Your task to perform on an android device: turn on location history Image 0: 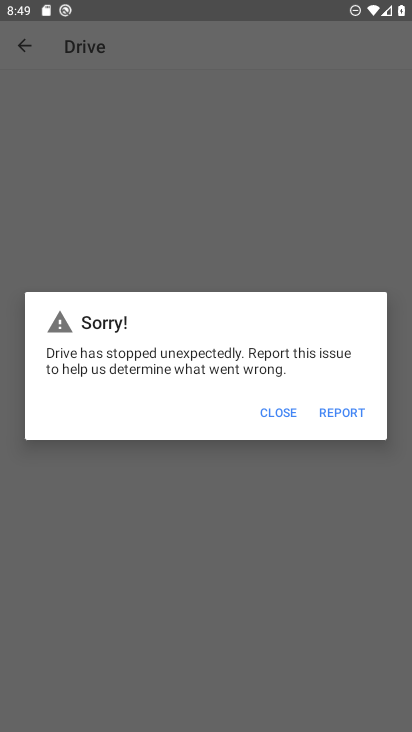
Step 0: press home button
Your task to perform on an android device: turn on location history Image 1: 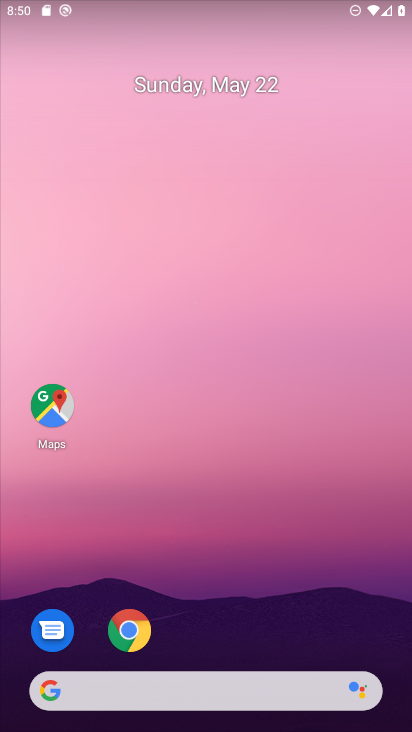
Step 1: drag from (240, 591) to (197, 200)
Your task to perform on an android device: turn on location history Image 2: 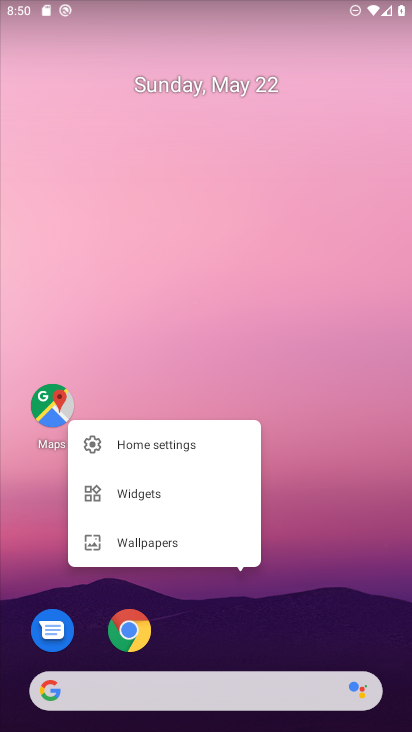
Step 2: click (317, 548)
Your task to perform on an android device: turn on location history Image 3: 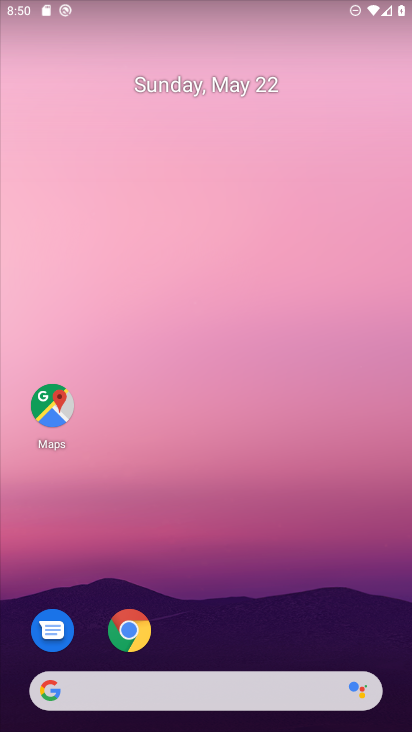
Step 3: drag from (257, 643) to (250, 148)
Your task to perform on an android device: turn on location history Image 4: 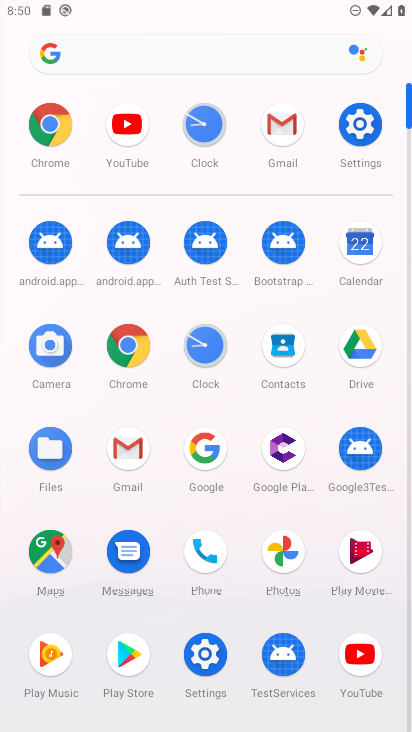
Step 4: click (358, 152)
Your task to perform on an android device: turn on location history Image 5: 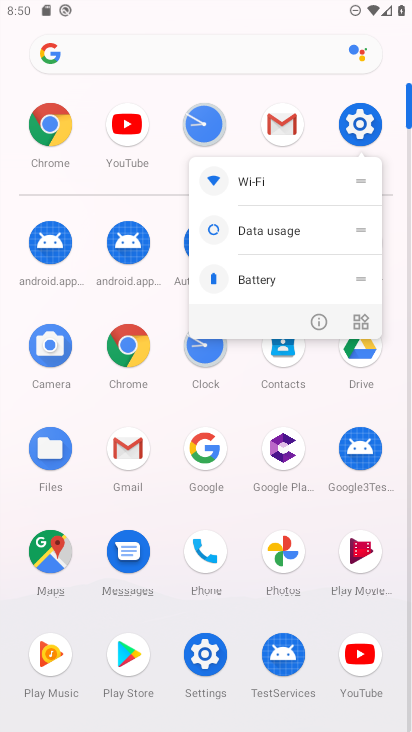
Step 5: click (358, 120)
Your task to perform on an android device: turn on location history Image 6: 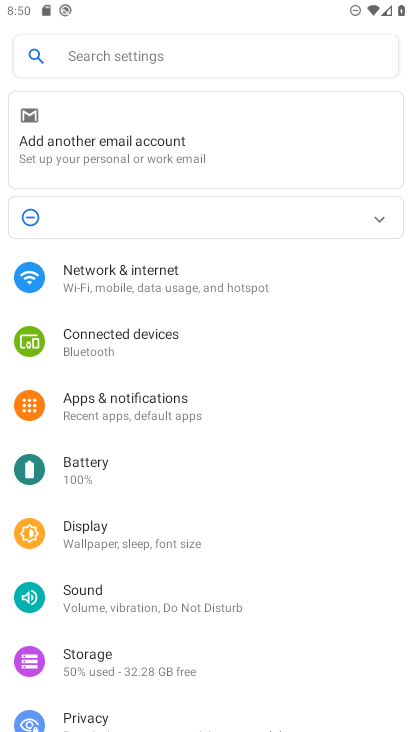
Step 6: drag from (141, 623) to (191, 309)
Your task to perform on an android device: turn on location history Image 7: 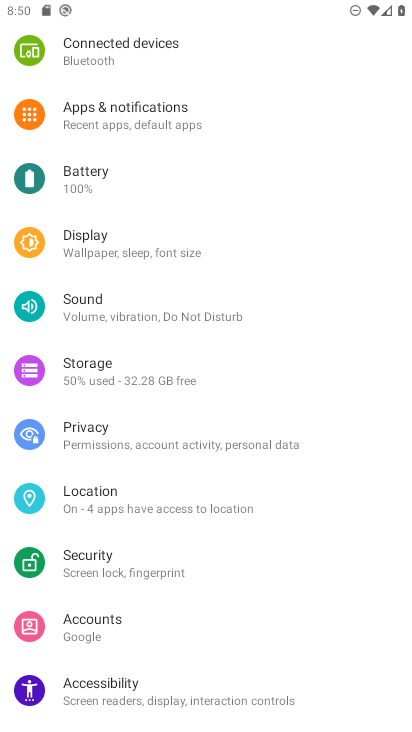
Step 7: click (278, 493)
Your task to perform on an android device: turn on location history Image 8: 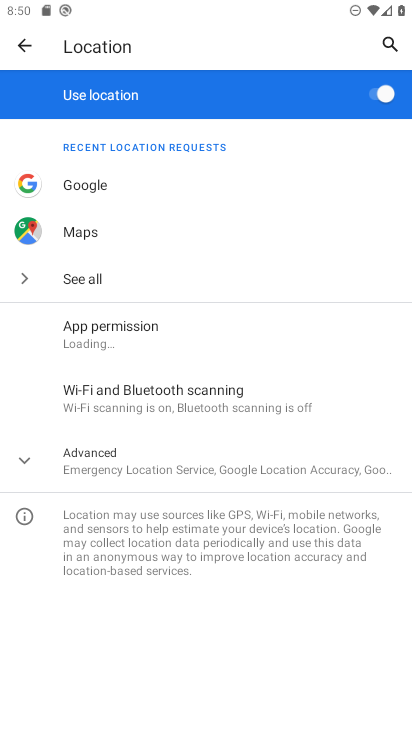
Step 8: click (205, 477)
Your task to perform on an android device: turn on location history Image 9: 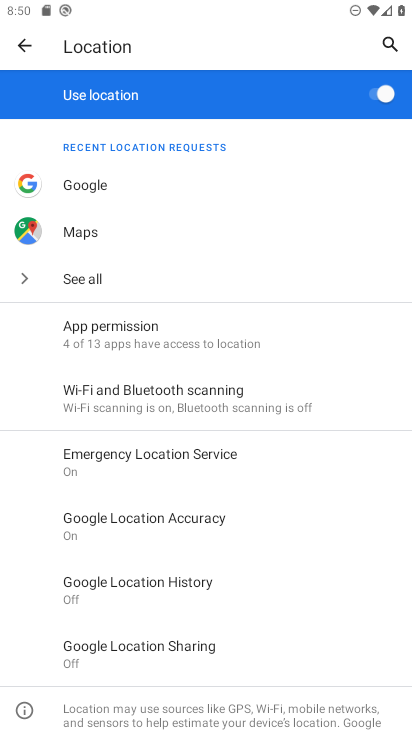
Step 9: click (259, 595)
Your task to perform on an android device: turn on location history Image 10: 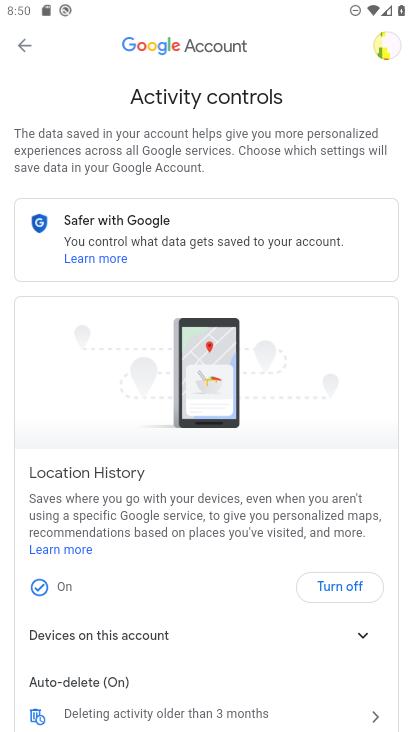
Step 10: click (319, 576)
Your task to perform on an android device: turn on location history Image 11: 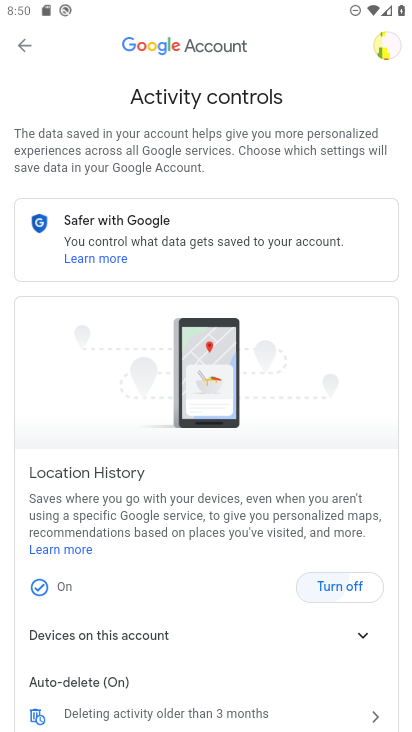
Step 11: click (322, 582)
Your task to perform on an android device: turn on location history Image 12: 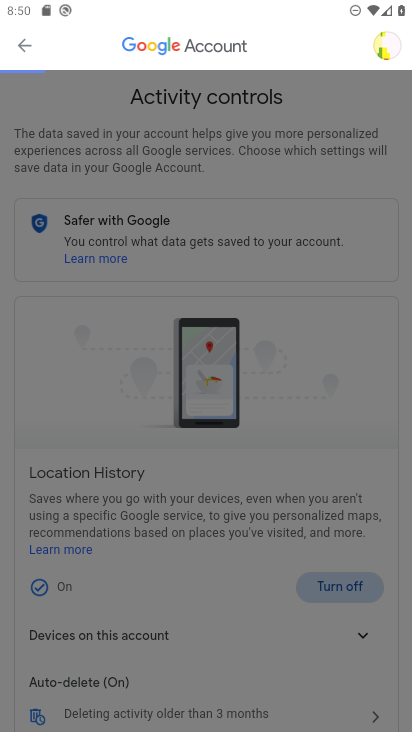
Step 12: click (322, 582)
Your task to perform on an android device: turn on location history Image 13: 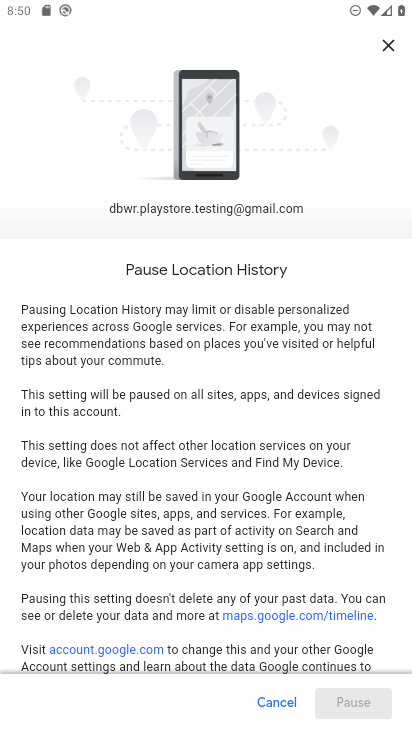
Step 13: drag from (241, 584) to (228, 310)
Your task to perform on an android device: turn on location history Image 14: 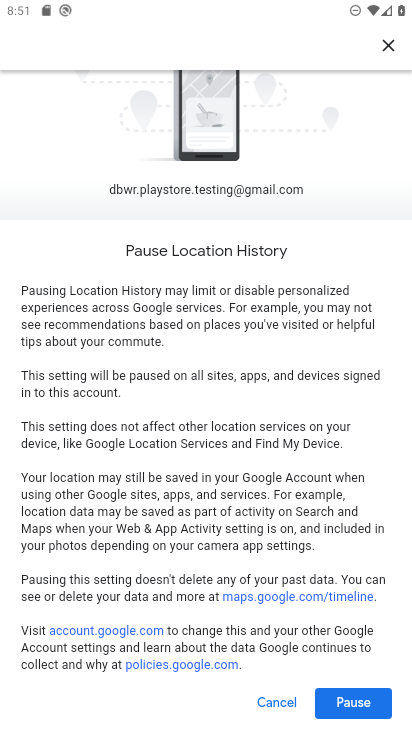
Step 14: click (374, 706)
Your task to perform on an android device: turn on location history Image 15: 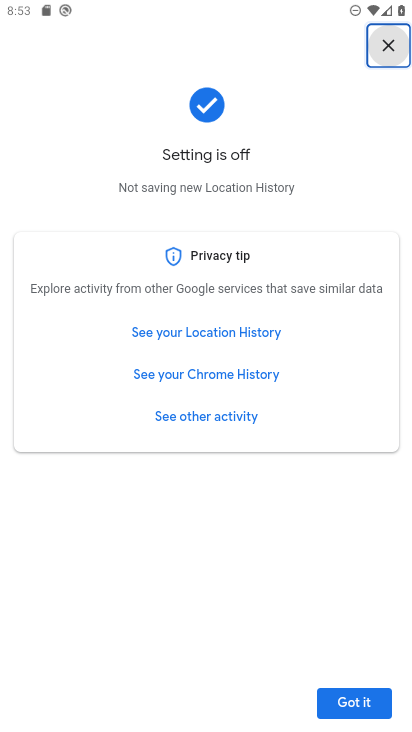
Step 15: task complete